Your task to perform on an android device: Open wifi settings Image 0: 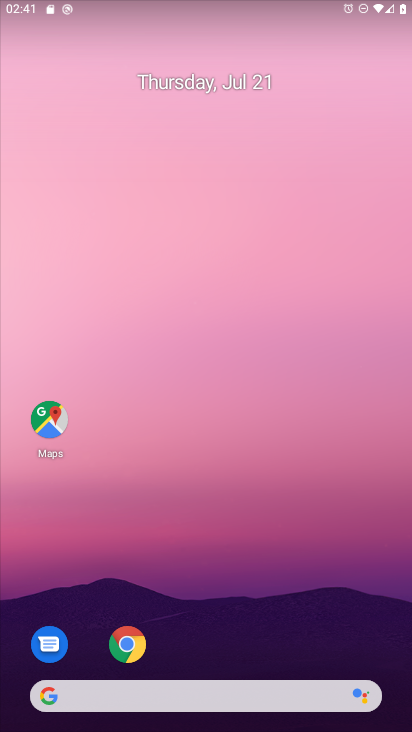
Step 0: drag from (192, 687) to (255, 97)
Your task to perform on an android device: Open wifi settings Image 1: 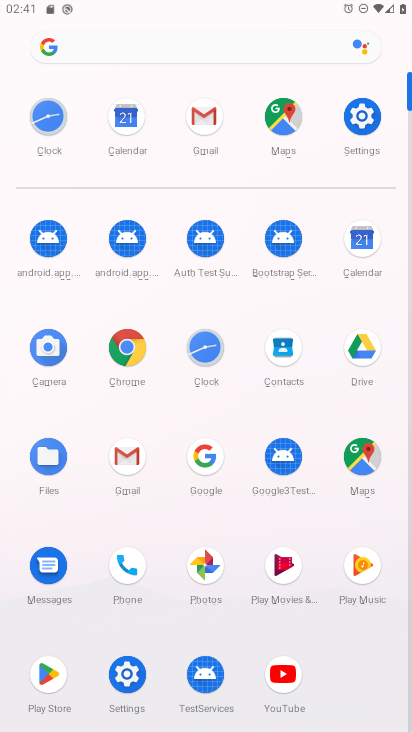
Step 1: click (359, 114)
Your task to perform on an android device: Open wifi settings Image 2: 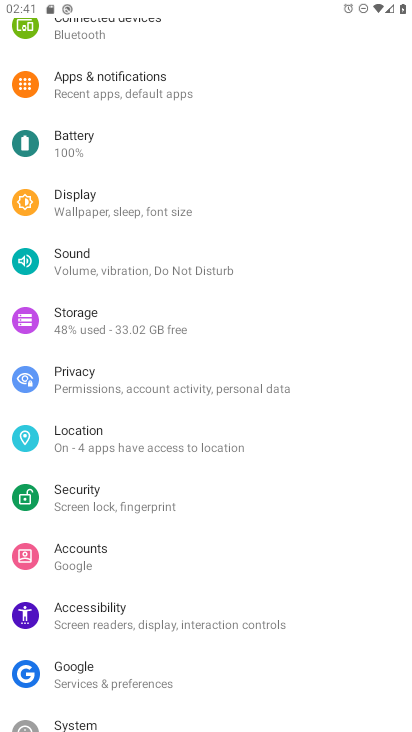
Step 2: drag from (103, 67) to (181, 448)
Your task to perform on an android device: Open wifi settings Image 3: 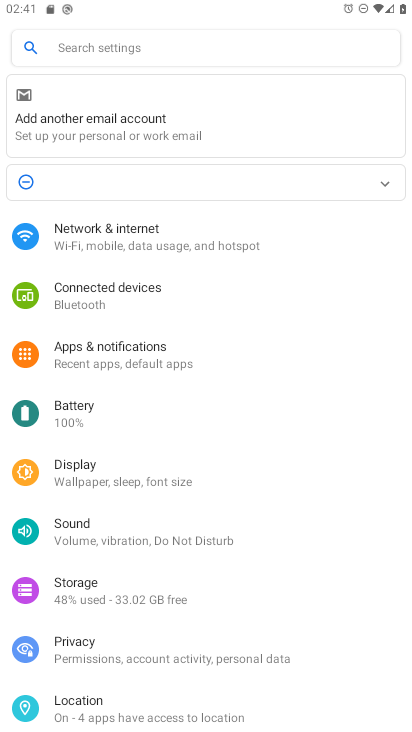
Step 3: click (144, 234)
Your task to perform on an android device: Open wifi settings Image 4: 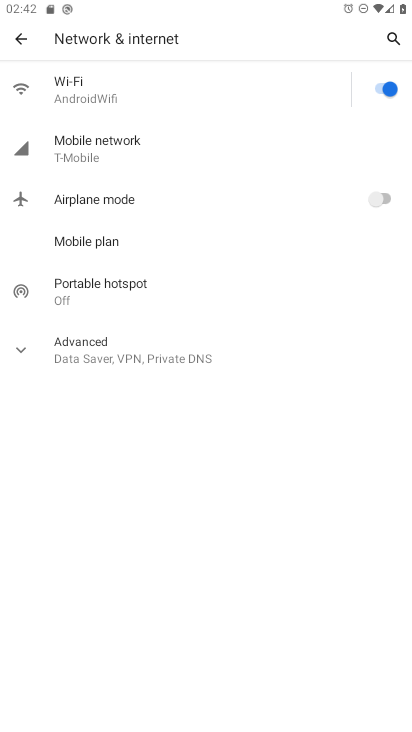
Step 4: click (90, 90)
Your task to perform on an android device: Open wifi settings Image 5: 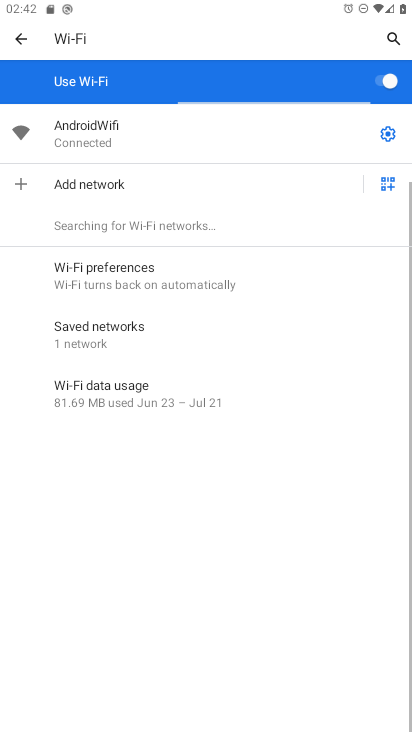
Step 5: click (385, 135)
Your task to perform on an android device: Open wifi settings Image 6: 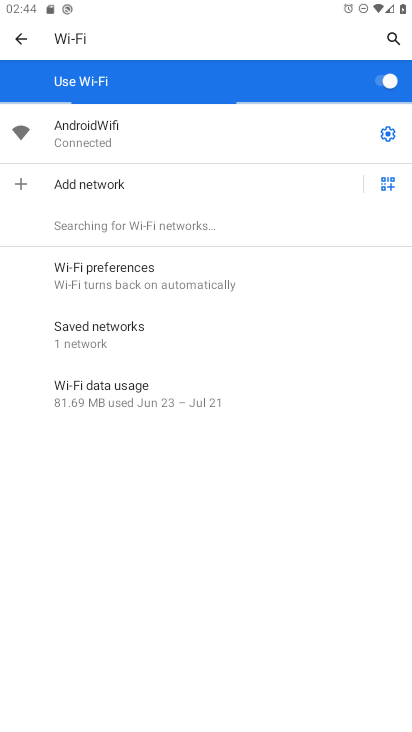
Step 6: click (388, 127)
Your task to perform on an android device: Open wifi settings Image 7: 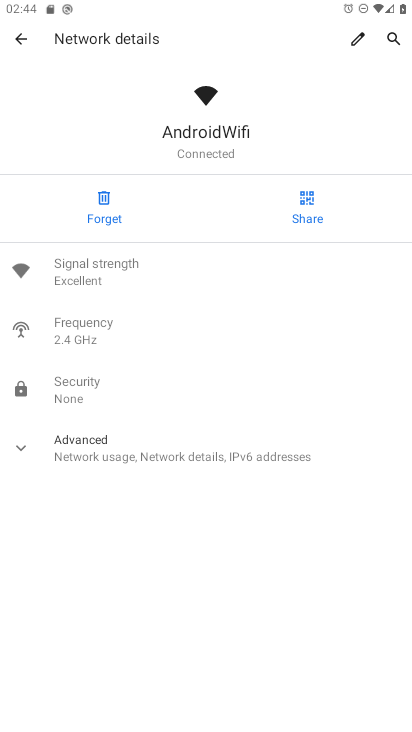
Step 7: click (70, 452)
Your task to perform on an android device: Open wifi settings Image 8: 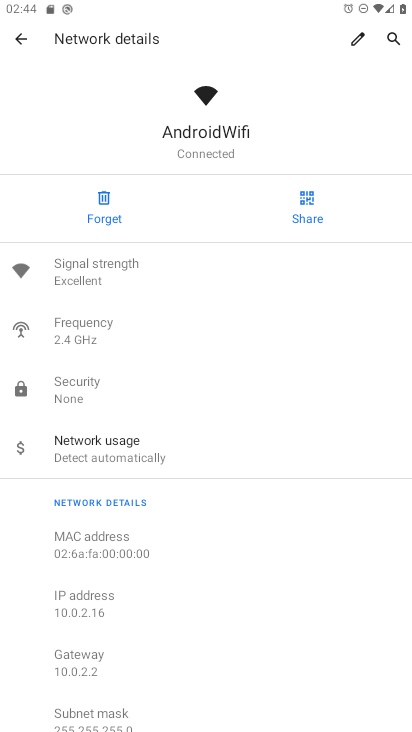
Step 8: task complete